Your task to perform on an android device: turn off location history Image 0: 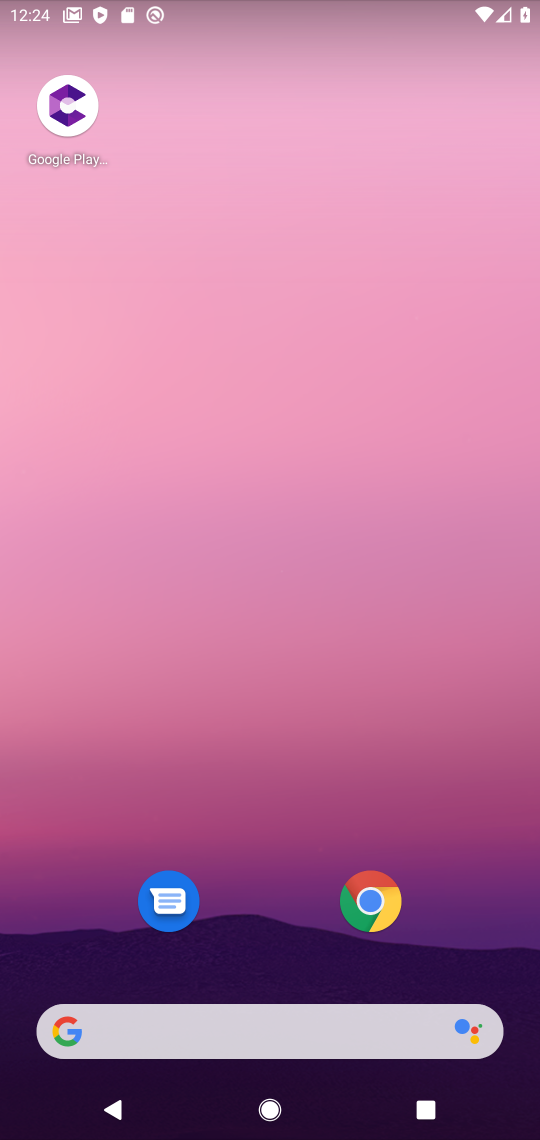
Step 0: drag from (276, 906) to (224, 305)
Your task to perform on an android device: turn off location history Image 1: 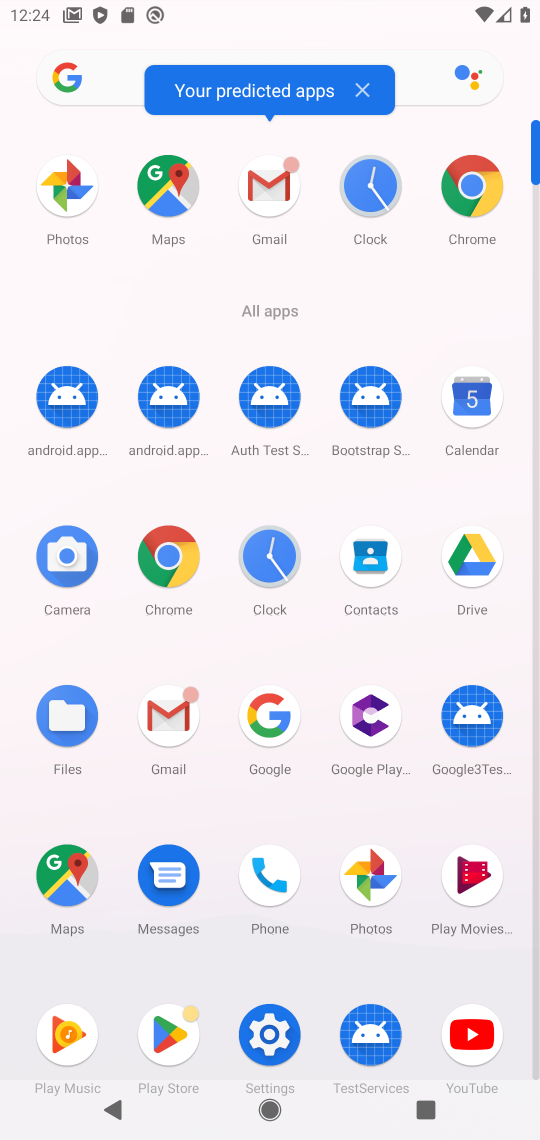
Step 1: click (264, 1049)
Your task to perform on an android device: turn off location history Image 2: 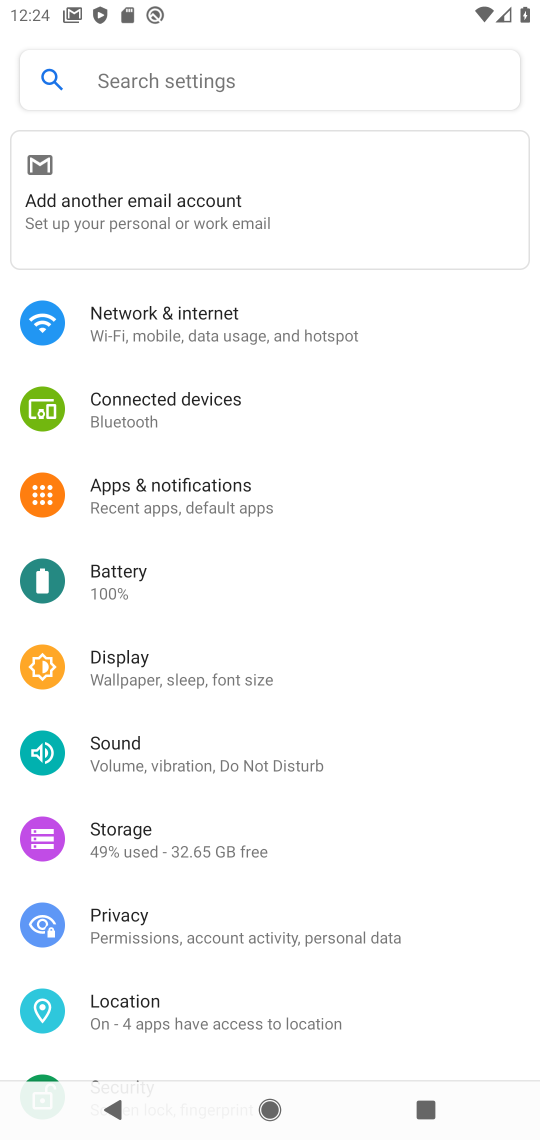
Step 2: click (196, 1024)
Your task to perform on an android device: turn off location history Image 3: 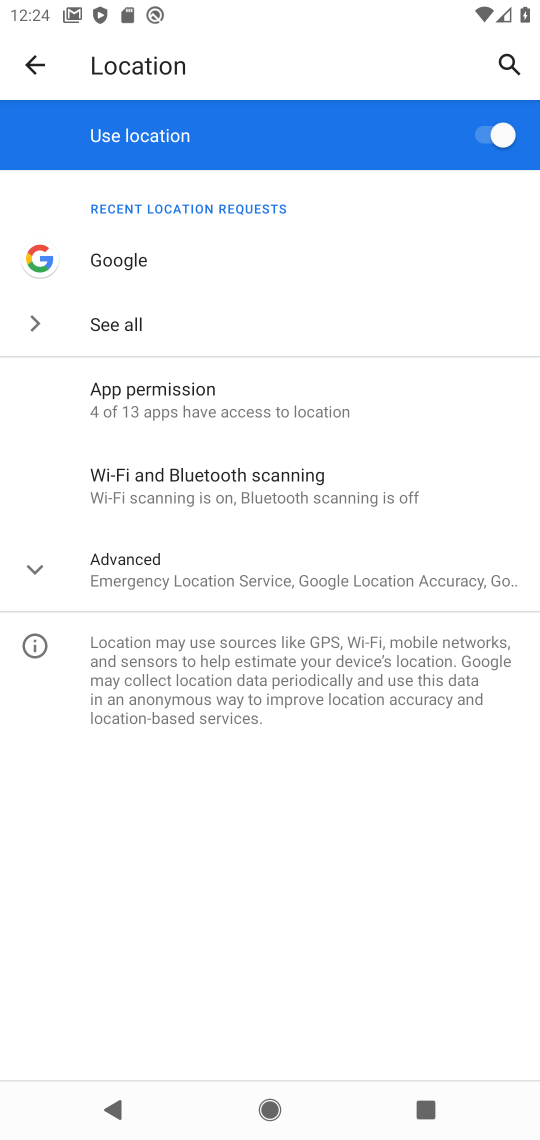
Step 3: click (489, 142)
Your task to perform on an android device: turn off location history Image 4: 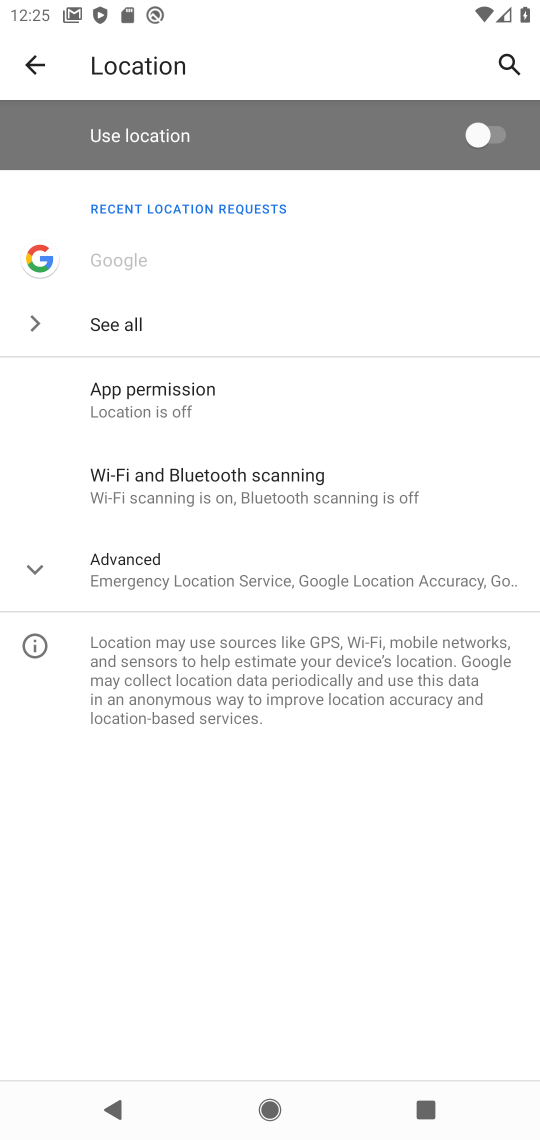
Step 4: task complete